Your task to perform on an android device: manage bookmarks in the chrome app Image 0: 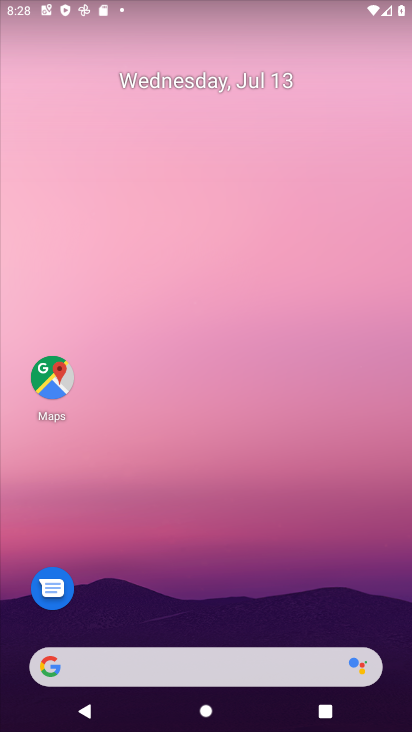
Step 0: drag from (164, 703) to (326, 113)
Your task to perform on an android device: manage bookmarks in the chrome app Image 1: 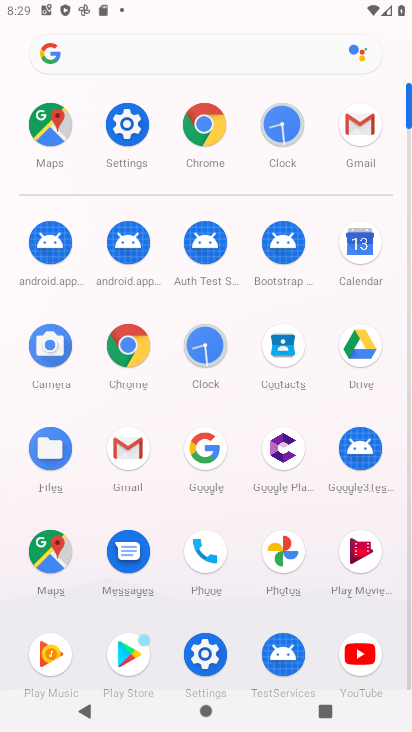
Step 1: click (210, 138)
Your task to perform on an android device: manage bookmarks in the chrome app Image 2: 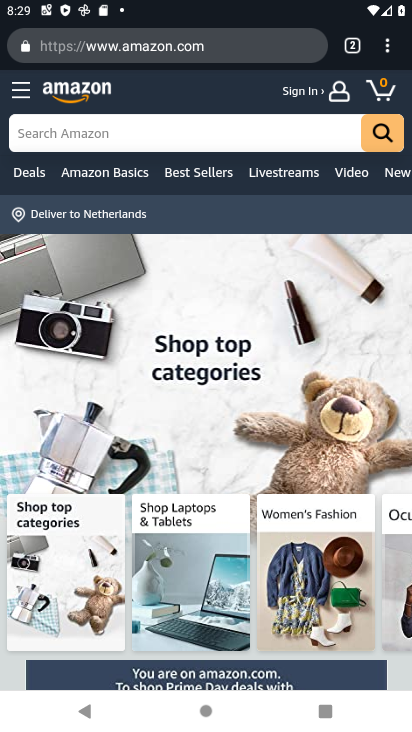
Step 2: click (383, 43)
Your task to perform on an android device: manage bookmarks in the chrome app Image 3: 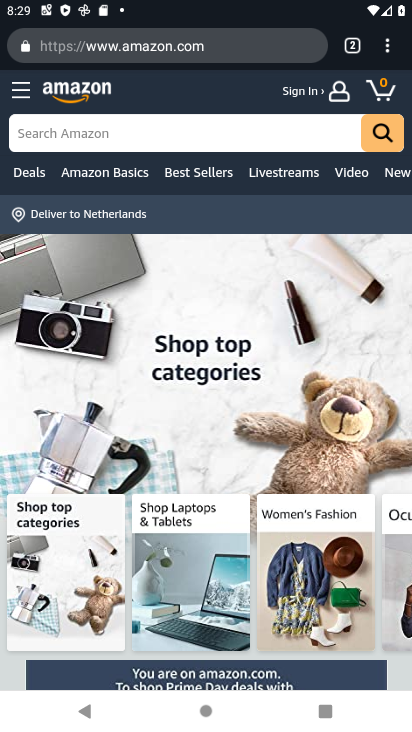
Step 3: click (388, 40)
Your task to perform on an android device: manage bookmarks in the chrome app Image 4: 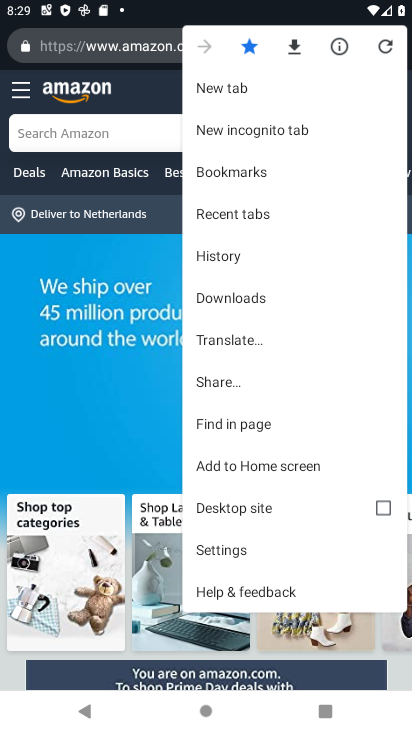
Step 4: click (252, 174)
Your task to perform on an android device: manage bookmarks in the chrome app Image 5: 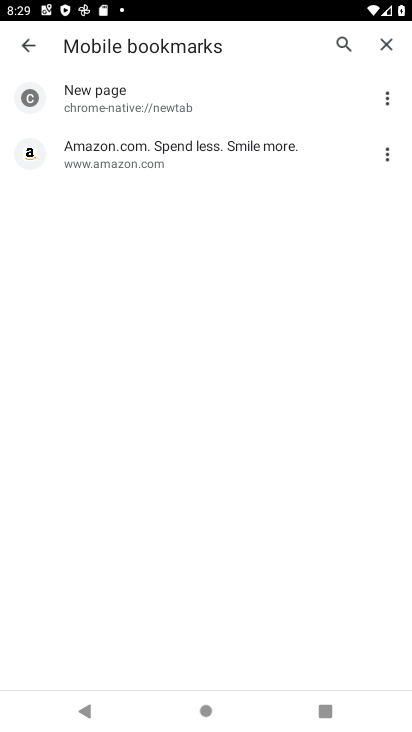
Step 5: click (388, 159)
Your task to perform on an android device: manage bookmarks in the chrome app Image 6: 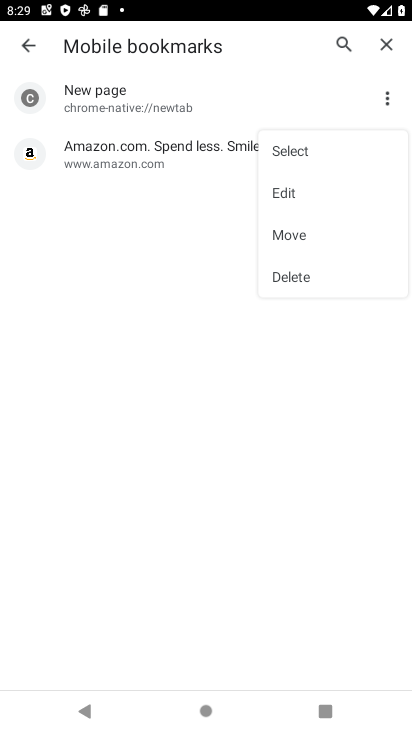
Step 6: click (287, 278)
Your task to perform on an android device: manage bookmarks in the chrome app Image 7: 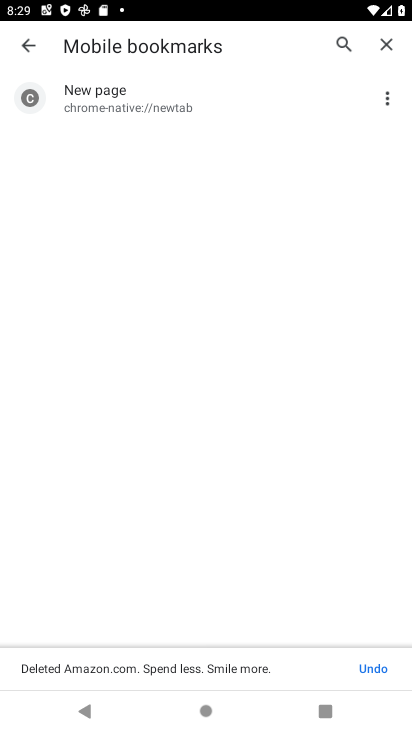
Step 7: task complete